Your task to perform on an android device: change the clock display to digital Image 0: 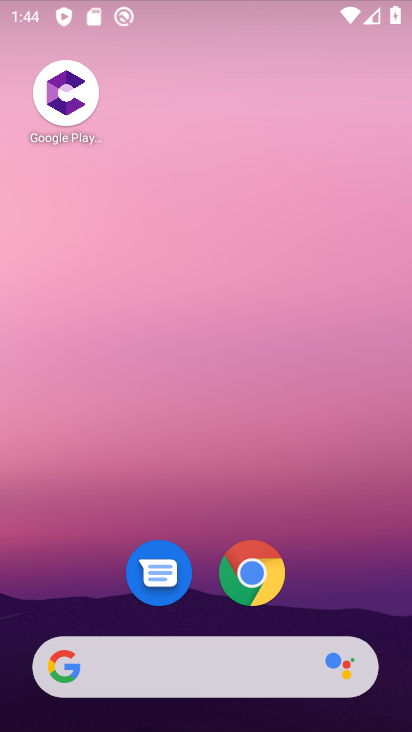
Step 0: click (254, 576)
Your task to perform on an android device: change the clock display to digital Image 1: 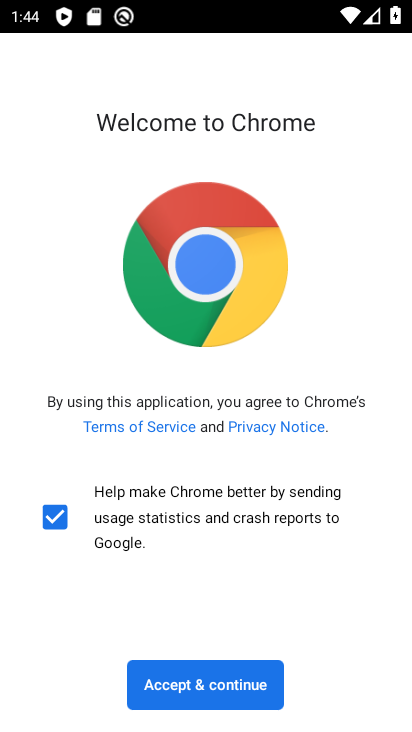
Step 1: press home button
Your task to perform on an android device: change the clock display to digital Image 2: 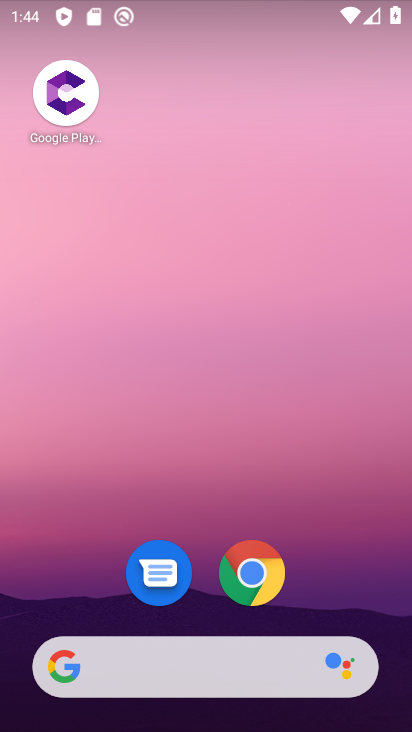
Step 2: drag from (335, 576) to (301, 169)
Your task to perform on an android device: change the clock display to digital Image 3: 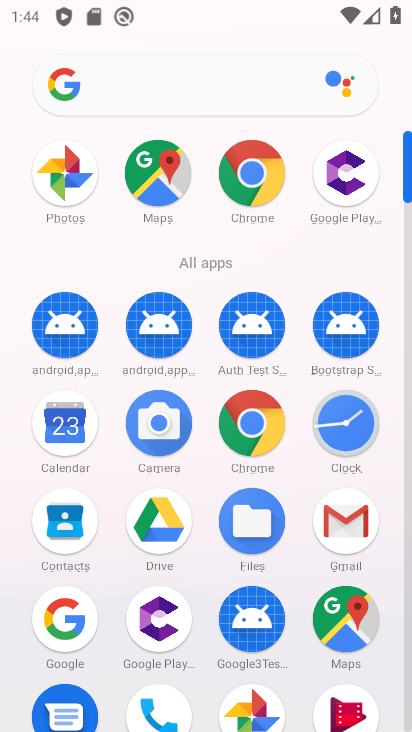
Step 3: click (337, 434)
Your task to perform on an android device: change the clock display to digital Image 4: 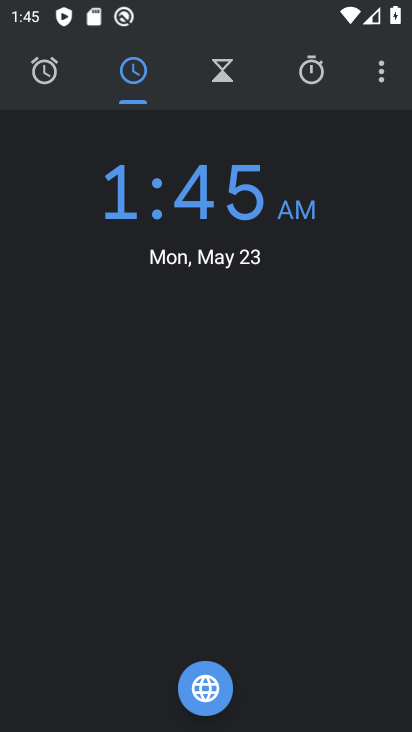
Step 4: drag from (378, 68) to (218, 139)
Your task to perform on an android device: change the clock display to digital Image 5: 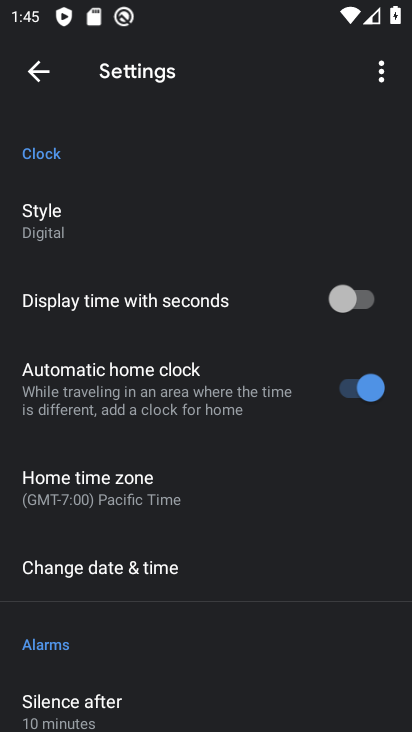
Step 5: click (48, 221)
Your task to perform on an android device: change the clock display to digital Image 6: 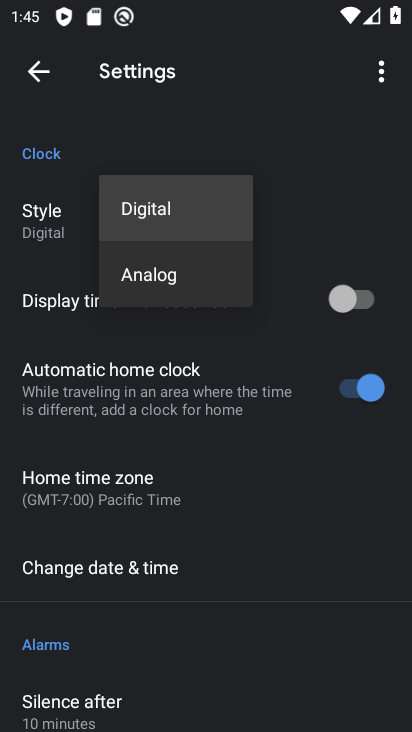
Step 6: task complete